Your task to perform on an android device: turn off priority inbox in the gmail app Image 0: 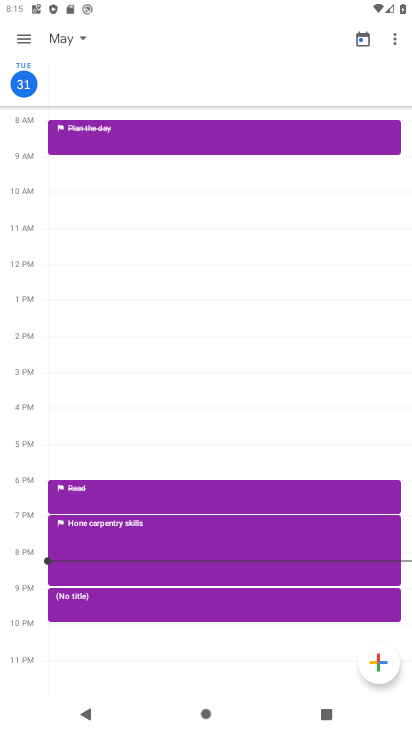
Step 0: press home button
Your task to perform on an android device: turn off priority inbox in the gmail app Image 1: 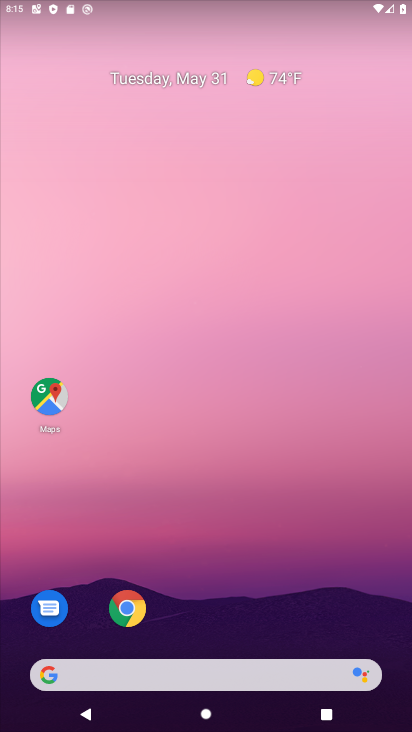
Step 1: drag from (206, 643) to (83, 110)
Your task to perform on an android device: turn off priority inbox in the gmail app Image 2: 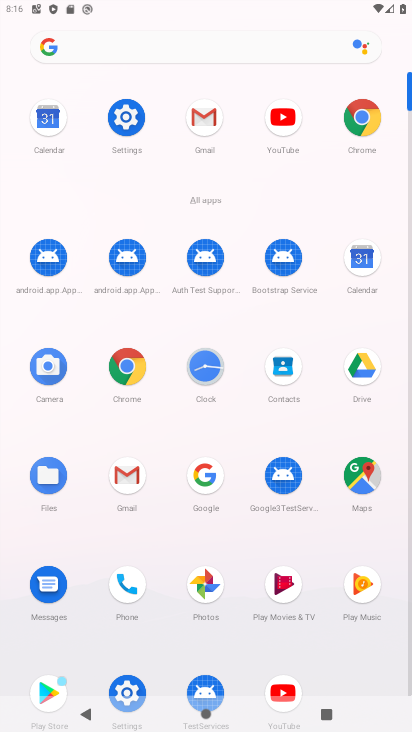
Step 2: click (122, 479)
Your task to perform on an android device: turn off priority inbox in the gmail app Image 3: 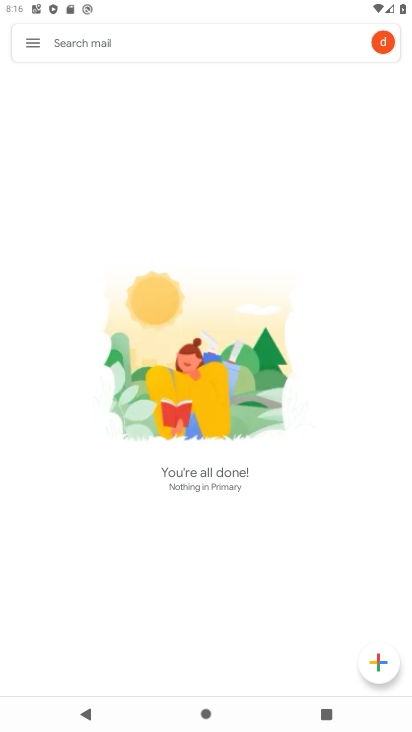
Step 3: click (26, 36)
Your task to perform on an android device: turn off priority inbox in the gmail app Image 4: 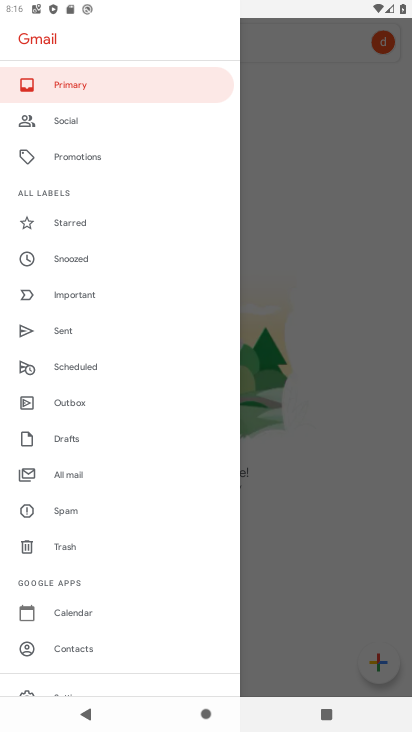
Step 4: click (28, 690)
Your task to perform on an android device: turn off priority inbox in the gmail app Image 5: 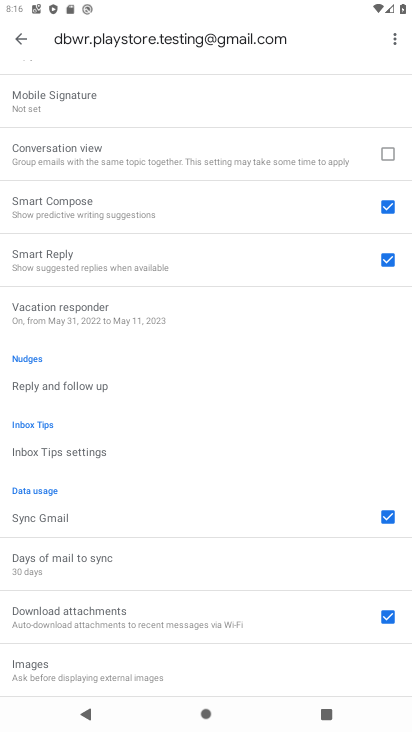
Step 5: drag from (118, 189) to (113, 525)
Your task to perform on an android device: turn off priority inbox in the gmail app Image 6: 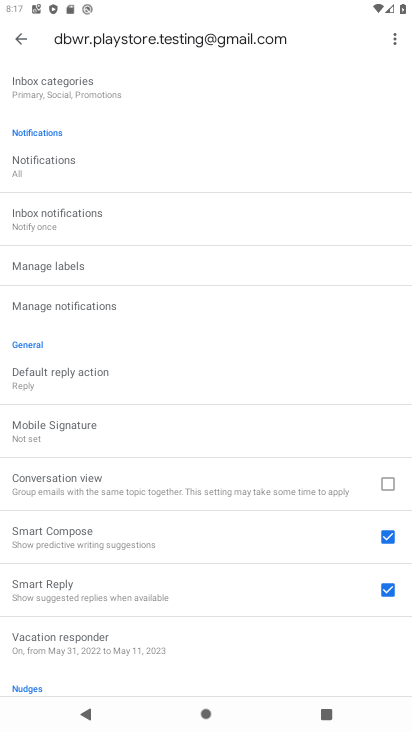
Step 6: drag from (89, 79) to (84, 327)
Your task to perform on an android device: turn off priority inbox in the gmail app Image 7: 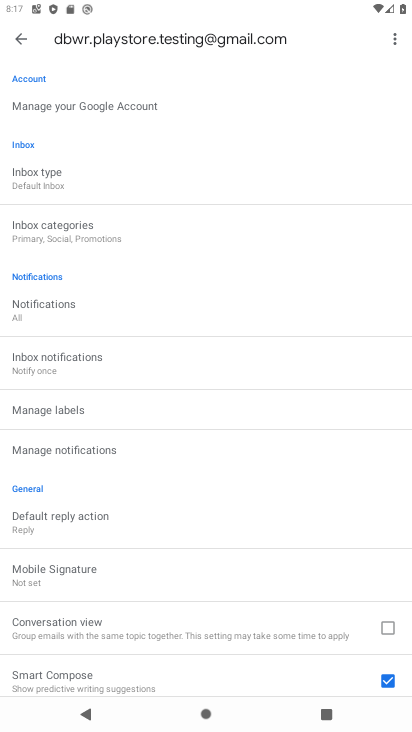
Step 7: click (35, 173)
Your task to perform on an android device: turn off priority inbox in the gmail app Image 8: 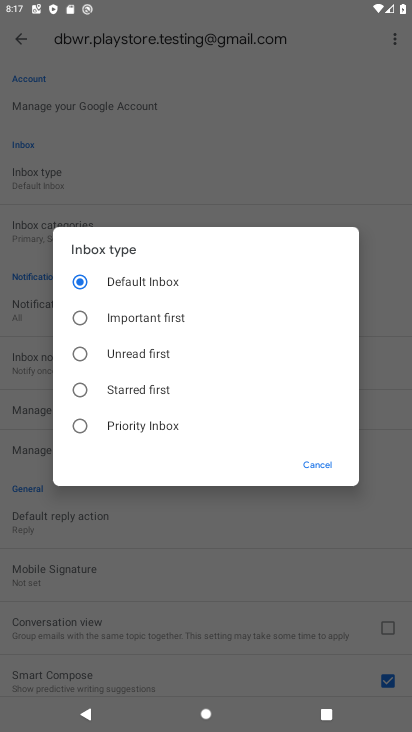
Step 8: task complete